Your task to perform on an android device: turn notification dots on Image 0: 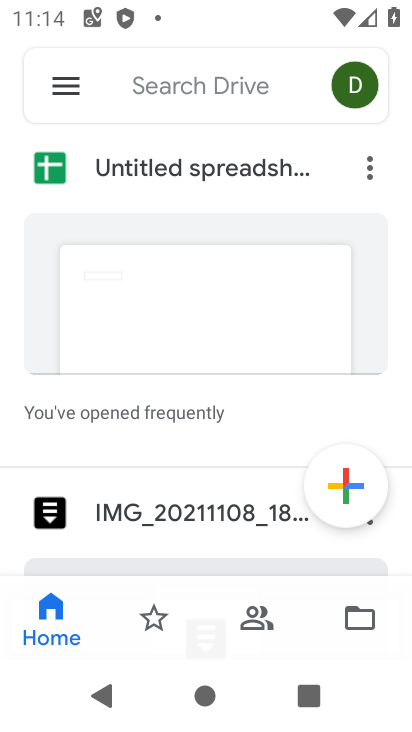
Step 0: press home button
Your task to perform on an android device: turn notification dots on Image 1: 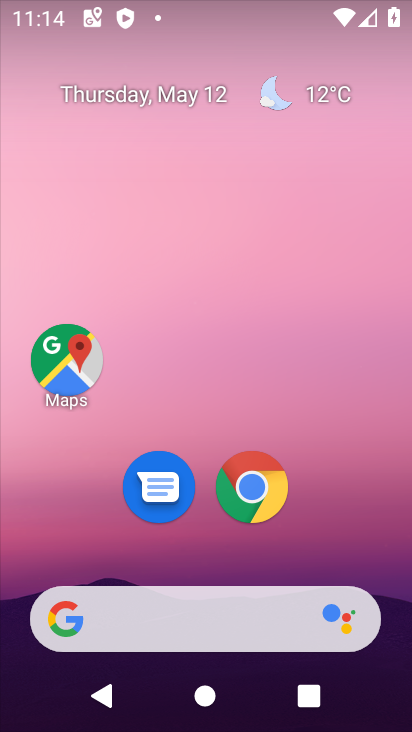
Step 1: drag from (343, 574) to (251, 4)
Your task to perform on an android device: turn notification dots on Image 2: 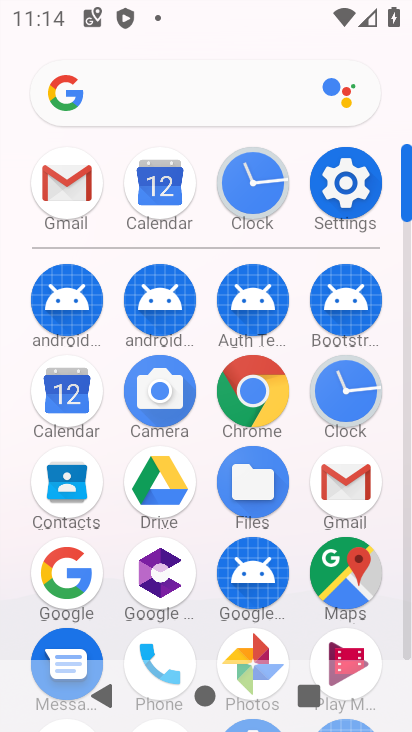
Step 2: click (348, 198)
Your task to perform on an android device: turn notification dots on Image 3: 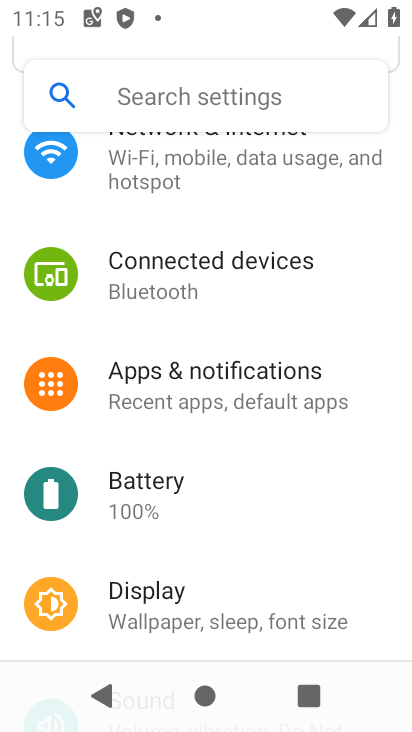
Step 3: click (271, 369)
Your task to perform on an android device: turn notification dots on Image 4: 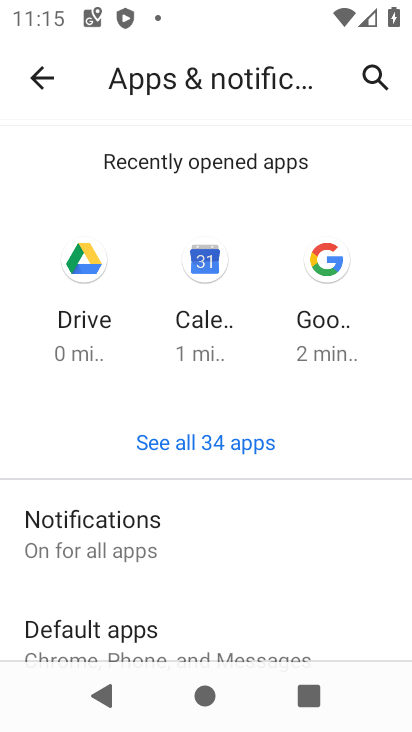
Step 4: click (90, 548)
Your task to perform on an android device: turn notification dots on Image 5: 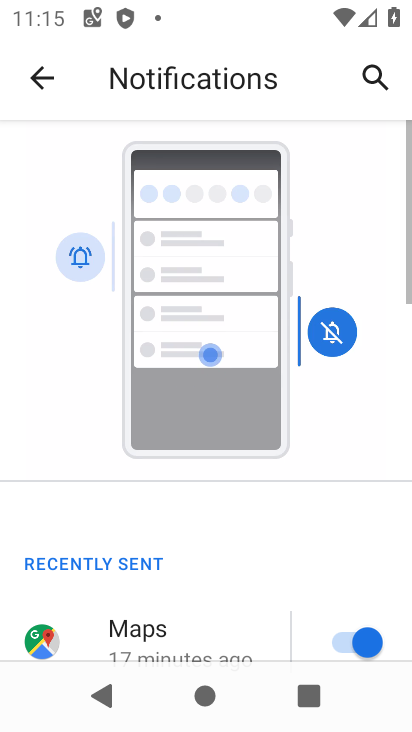
Step 5: drag from (168, 583) to (143, 101)
Your task to perform on an android device: turn notification dots on Image 6: 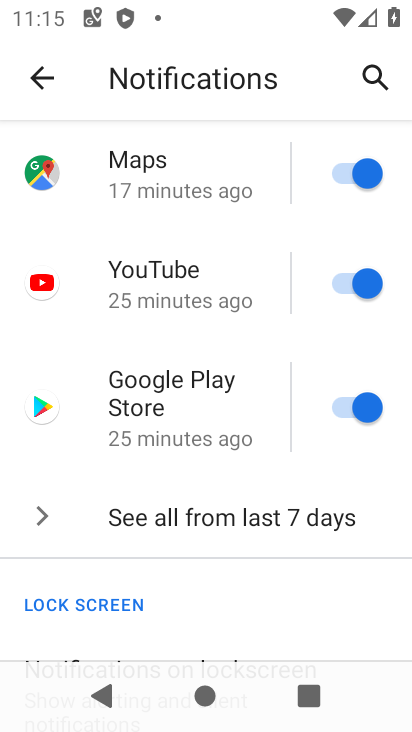
Step 6: drag from (119, 486) to (128, 57)
Your task to perform on an android device: turn notification dots on Image 7: 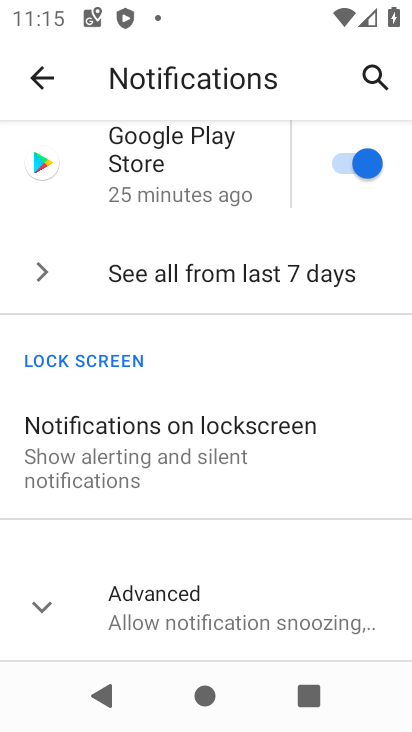
Step 7: click (48, 611)
Your task to perform on an android device: turn notification dots on Image 8: 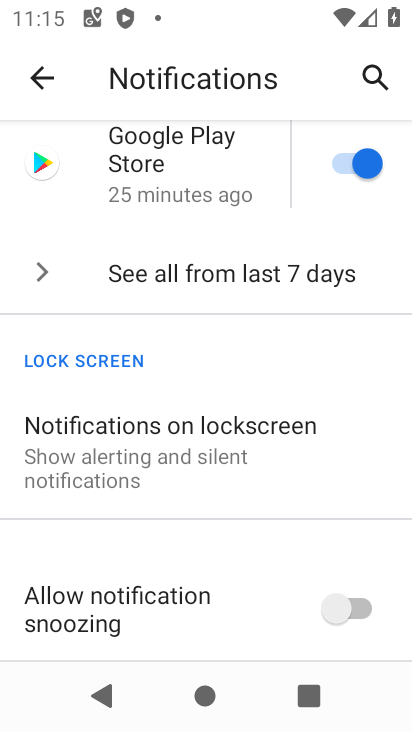
Step 8: drag from (131, 591) to (101, 160)
Your task to perform on an android device: turn notification dots on Image 9: 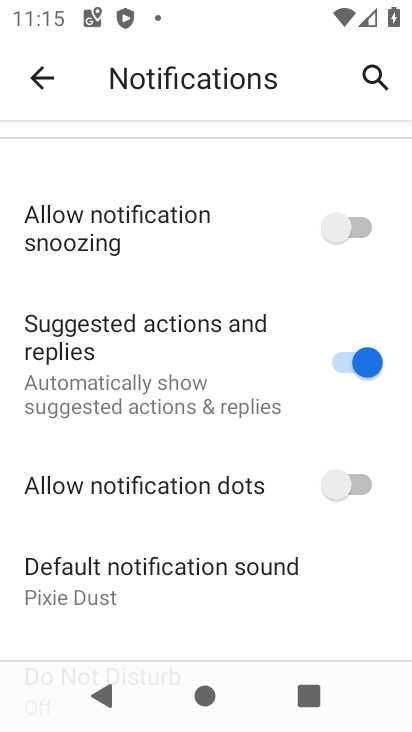
Step 9: click (355, 482)
Your task to perform on an android device: turn notification dots on Image 10: 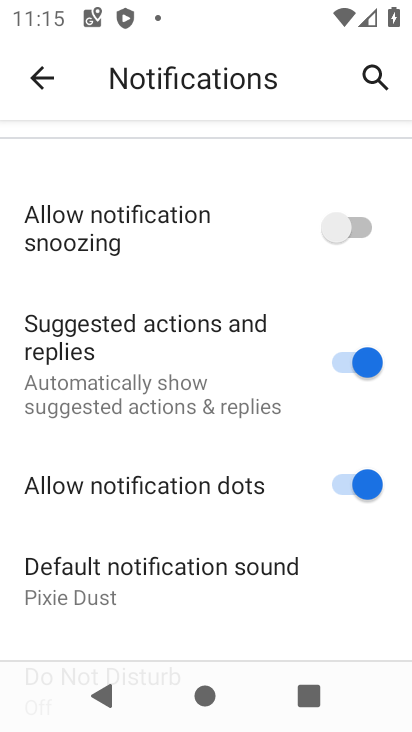
Step 10: task complete